Your task to perform on an android device: See recent photos Image 0: 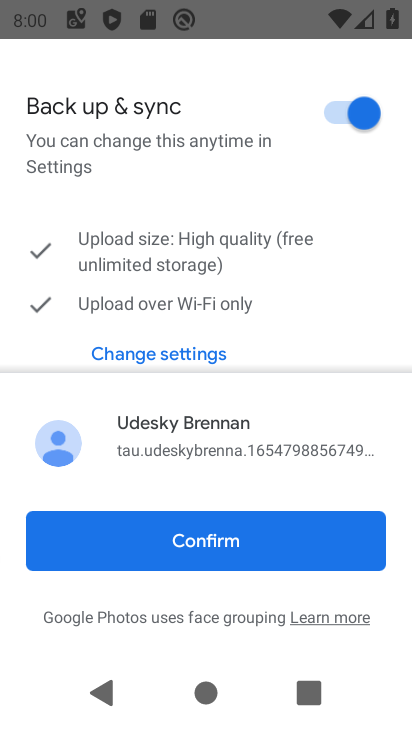
Step 0: press home button
Your task to perform on an android device: See recent photos Image 1: 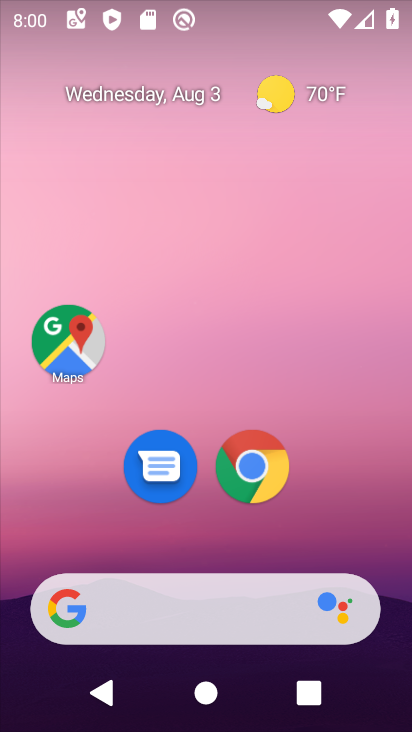
Step 1: drag from (349, 345) to (348, 49)
Your task to perform on an android device: See recent photos Image 2: 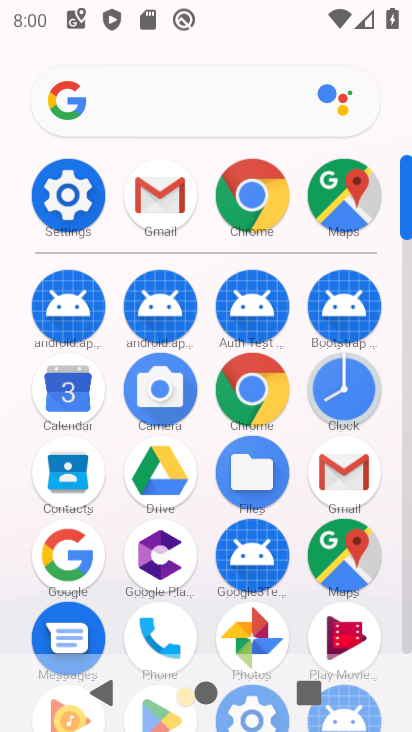
Step 2: click (255, 639)
Your task to perform on an android device: See recent photos Image 3: 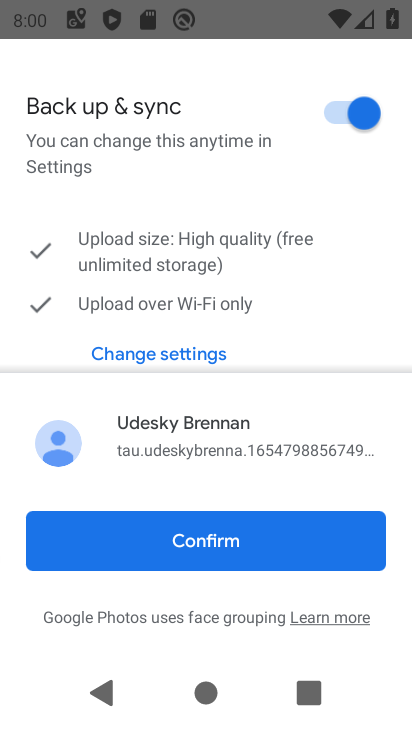
Step 3: click (287, 551)
Your task to perform on an android device: See recent photos Image 4: 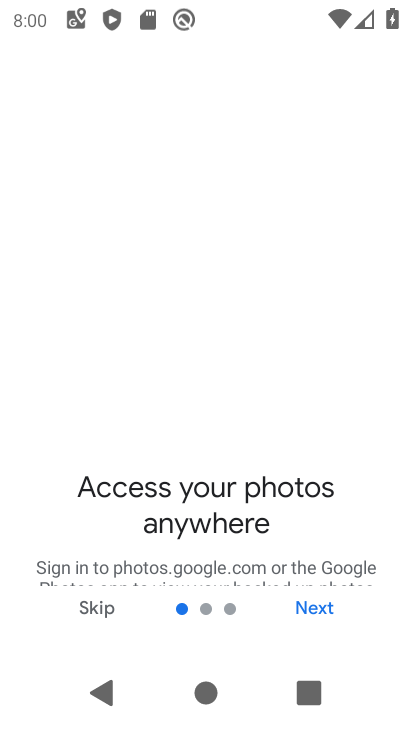
Step 4: click (323, 614)
Your task to perform on an android device: See recent photos Image 5: 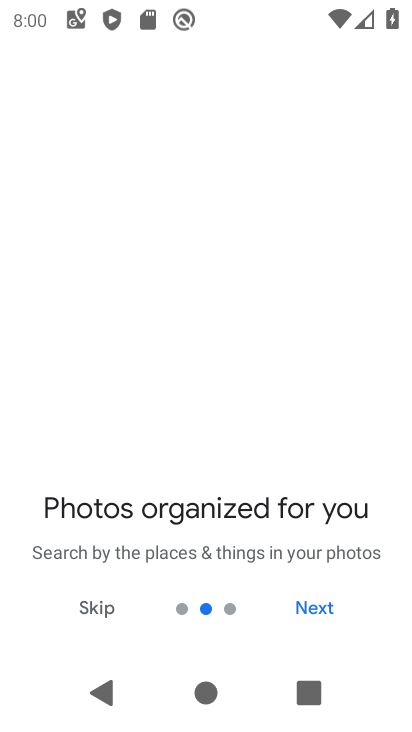
Step 5: click (323, 614)
Your task to perform on an android device: See recent photos Image 6: 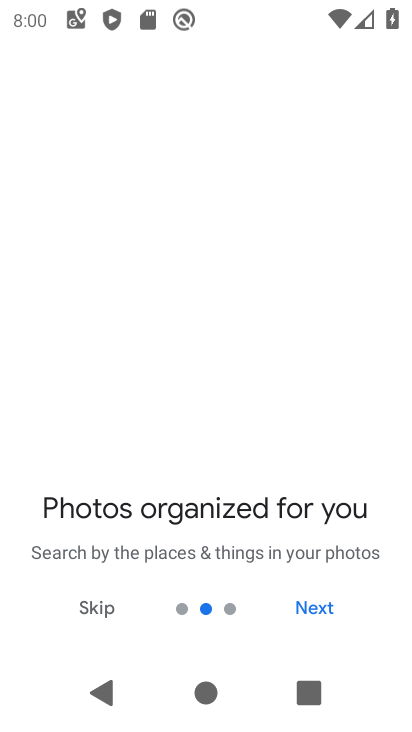
Step 6: click (323, 614)
Your task to perform on an android device: See recent photos Image 7: 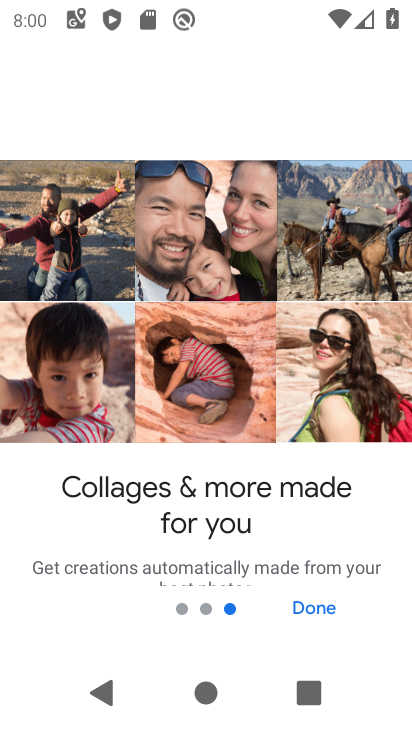
Step 7: click (323, 614)
Your task to perform on an android device: See recent photos Image 8: 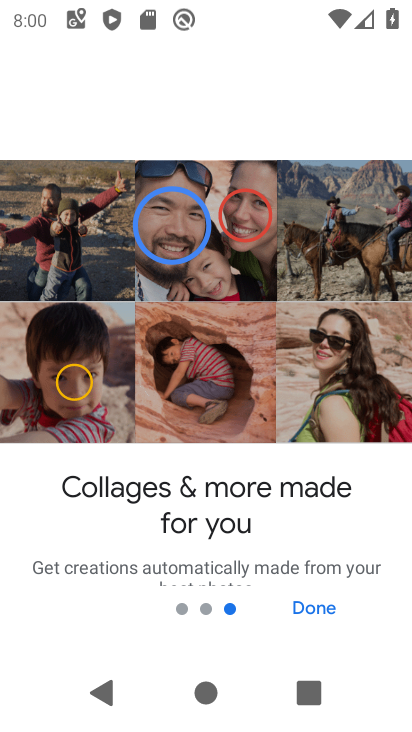
Step 8: click (323, 614)
Your task to perform on an android device: See recent photos Image 9: 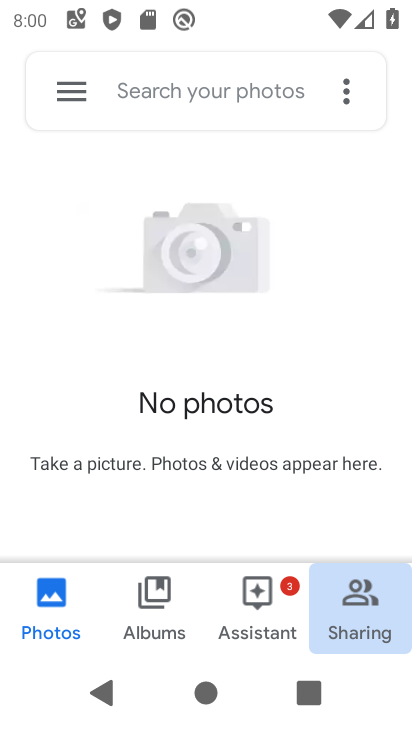
Step 9: click (323, 614)
Your task to perform on an android device: See recent photos Image 10: 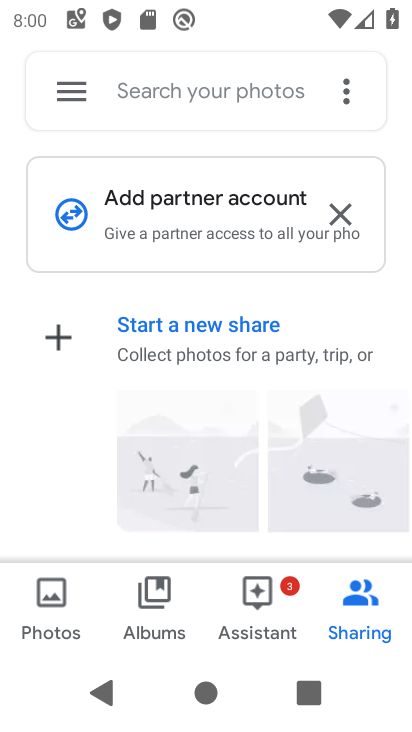
Step 10: click (85, 597)
Your task to perform on an android device: See recent photos Image 11: 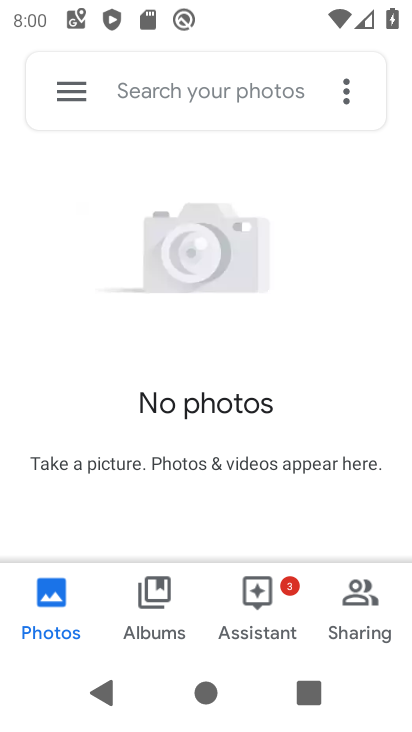
Step 11: task complete